Your task to perform on an android device: Go to sound settings Image 0: 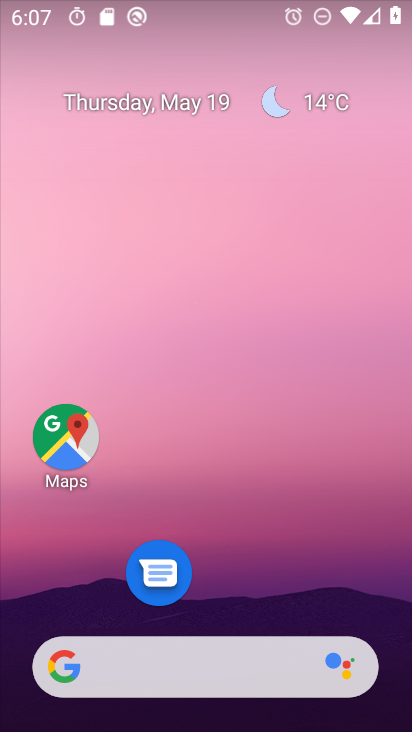
Step 0: drag from (213, 61) to (246, 38)
Your task to perform on an android device: Go to sound settings Image 1: 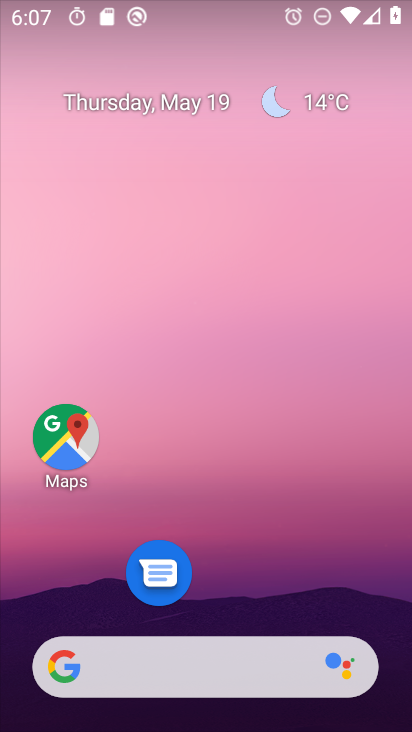
Step 1: drag from (265, 586) to (199, 0)
Your task to perform on an android device: Go to sound settings Image 2: 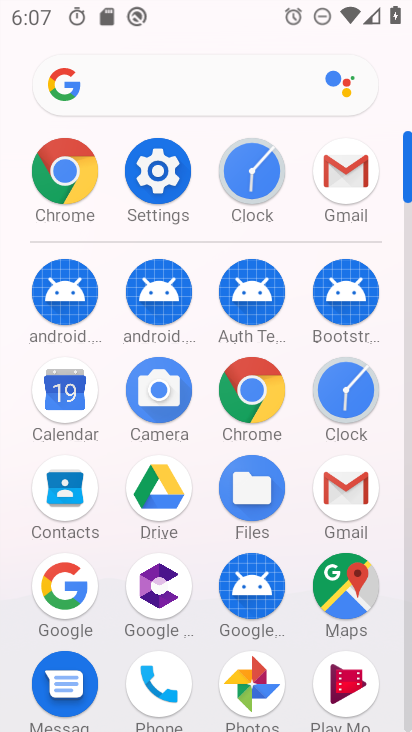
Step 2: click (173, 178)
Your task to perform on an android device: Go to sound settings Image 3: 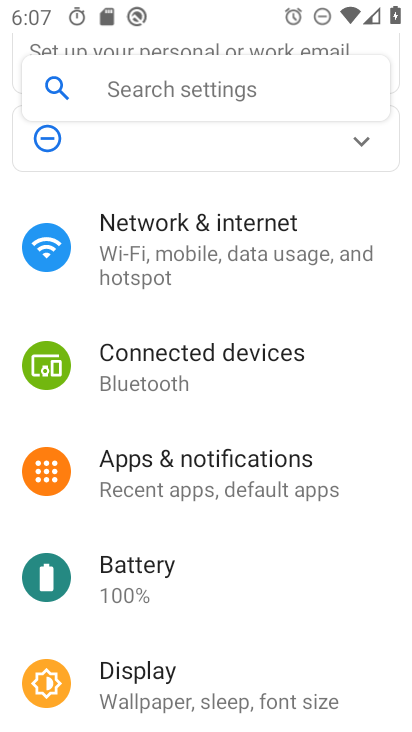
Step 3: drag from (196, 641) to (198, 250)
Your task to perform on an android device: Go to sound settings Image 4: 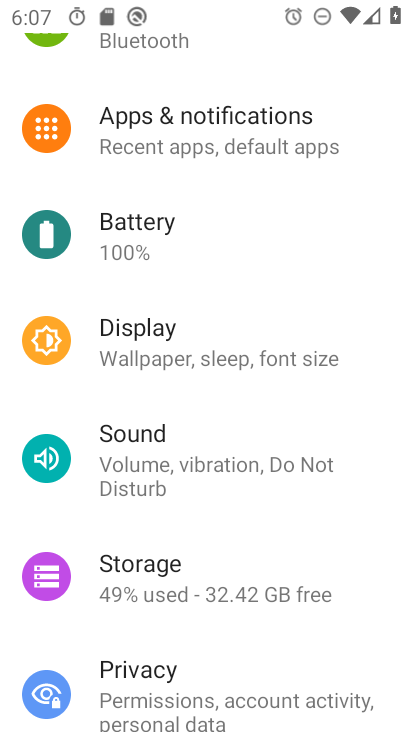
Step 4: click (136, 478)
Your task to perform on an android device: Go to sound settings Image 5: 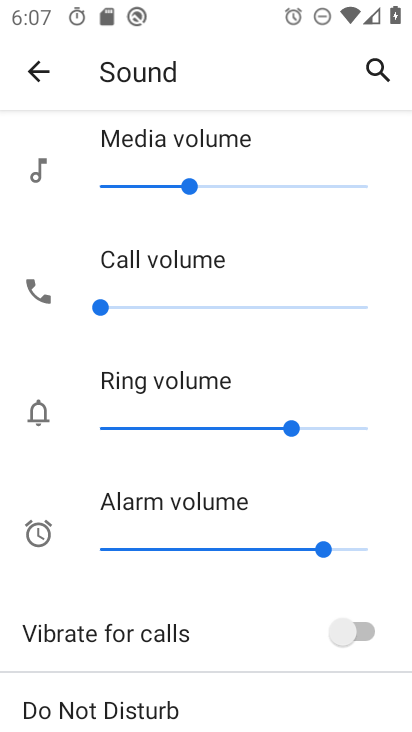
Step 5: task complete